Your task to perform on an android device: read, delete, or share a saved page in the chrome app Image 0: 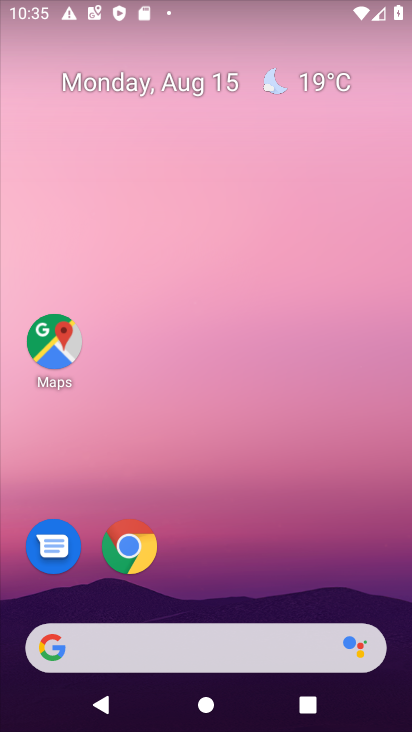
Step 0: click (127, 544)
Your task to perform on an android device: read, delete, or share a saved page in the chrome app Image 1: 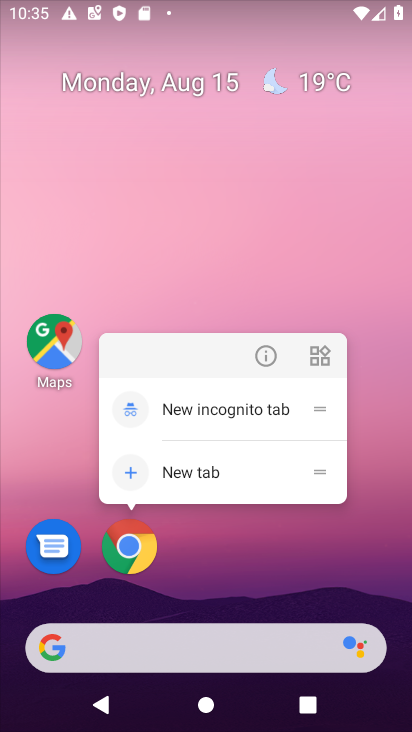
Step 1: click (122, 559)
Your task to perform on an android device: read, delete, or share a saved page in the chrome app Image 2: 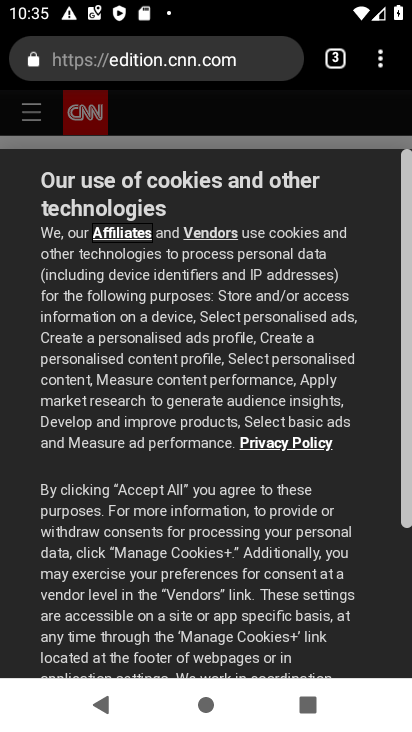
Step 2: click (381, 69)
Your task to perform on an android device: read, delete, or share a saved page in the chrome app Image 3: 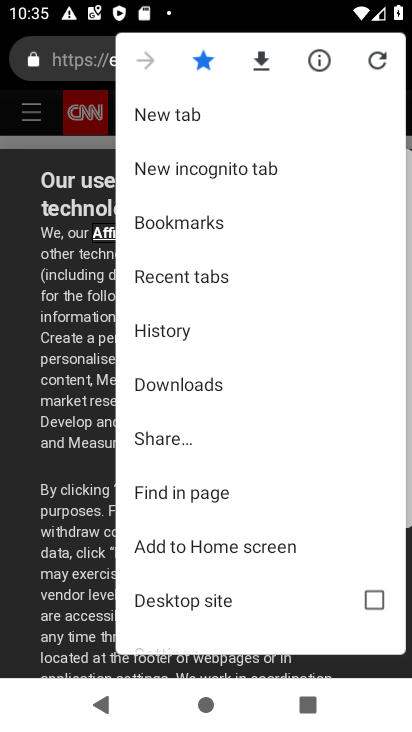
Step 3: click (159, 379)
Your task to perform on an android device: read, delete, or share a saved page in the chrome app Image 4: 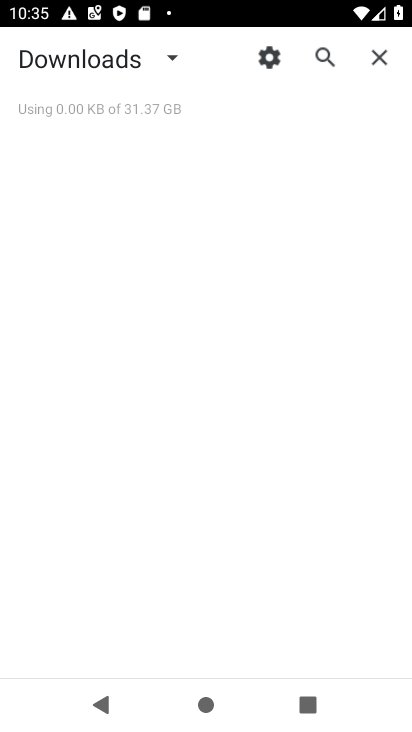
Step 4: click (172, 51)
Your task to perform on an android device: read, delete, or share a saved page in the chrome app Image 5: 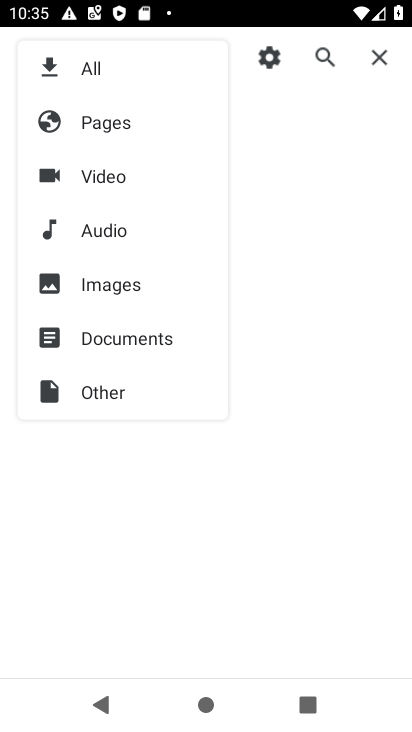
Step 5: click (100, 117)
Your task to perform on an android device: read, delete, or share a saved page in the chrome app Image 6: 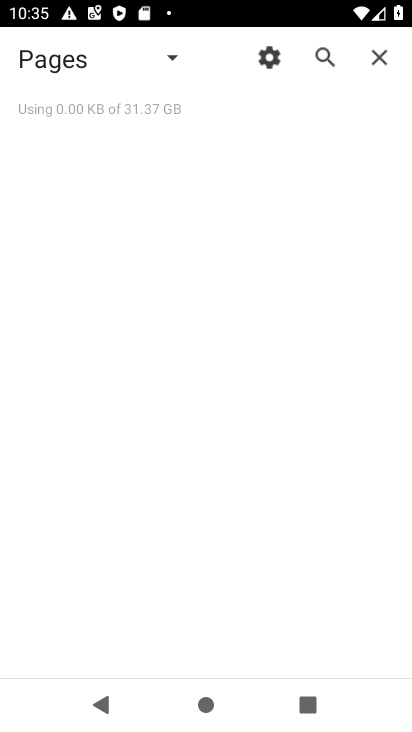
Step 6: task complete